Your task to perform on an android device: Open ESPN.com Image 0: 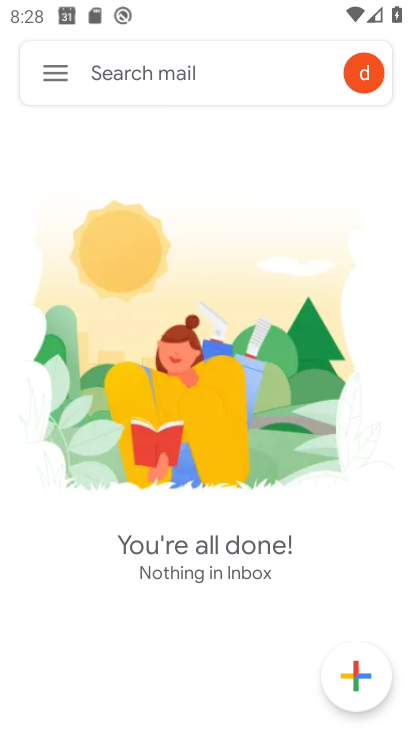
Step 0: press home button
Your task to perform on an android device: Open ESPN.com Image 1: 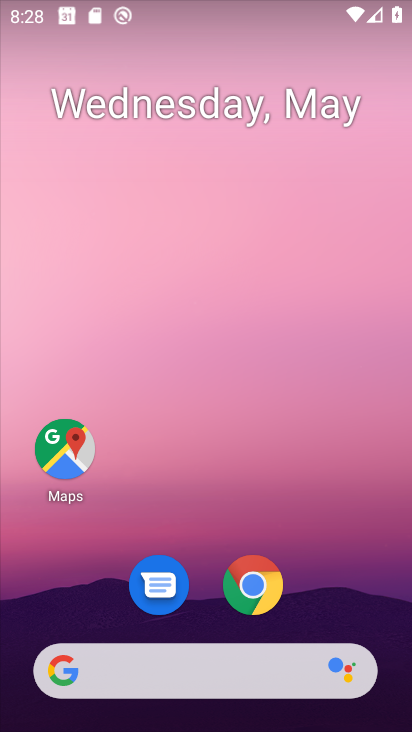
Step 1: click (253, 679)
Your task to perform on an android device: Open ESPN.com Image 2: 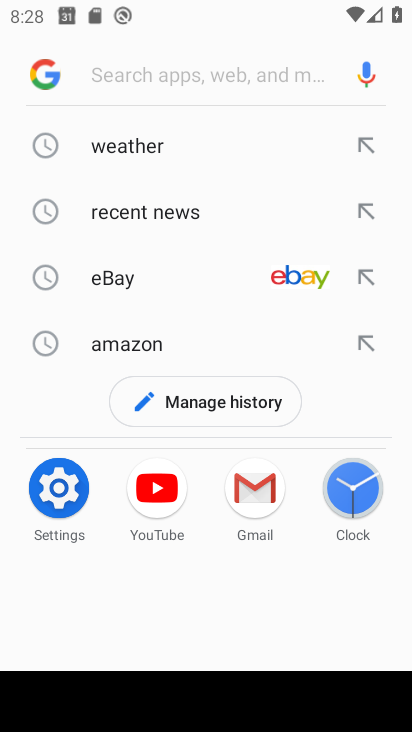
Step 2: type "espn.com"
Your task to perform on an android device: Open ESPN.com Image 3: 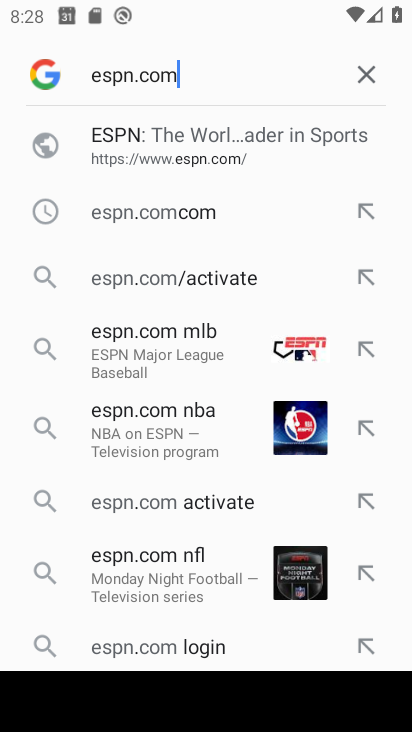
Step 3: click (95, 154)
Your task to perform on an android device: Open ESPN.com Image 4: 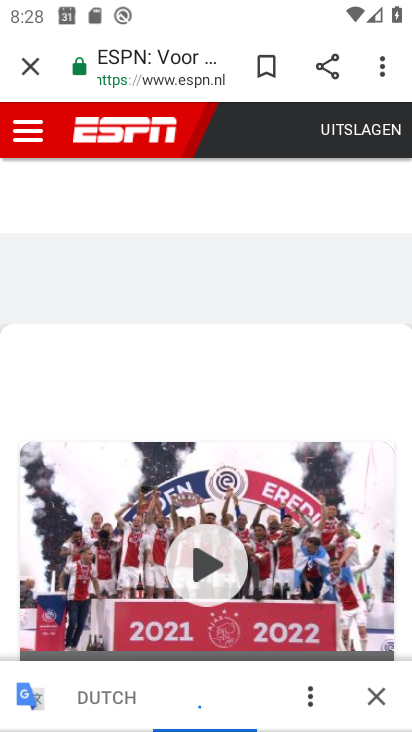
Step 4: task complete